Your task to perform on an android device: allow cookies in the chrome app Image 0: 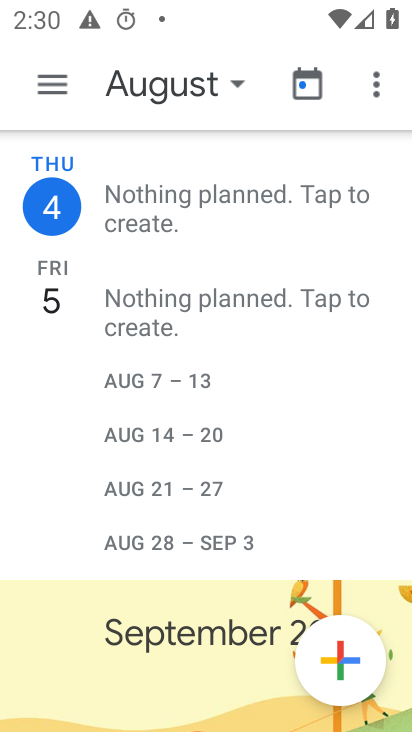
Step 0: press back button
Your task to perform on an android device: allow cookies in the chrome app Image 1: 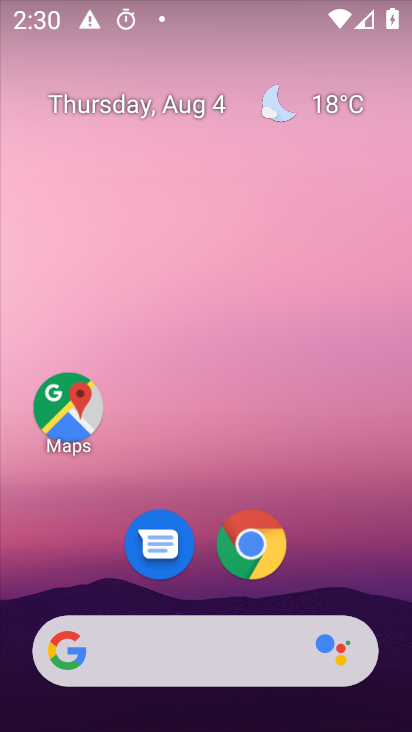
Step 1: click (247, 534)
Your task to perform on an android device: allow cookies in the chrome app Image 2: 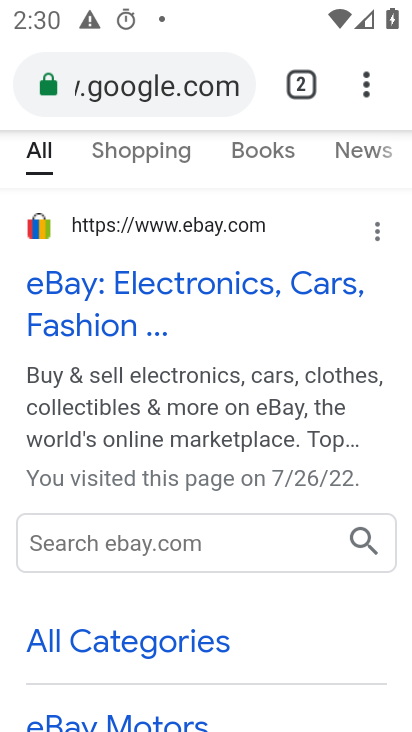
Step 2: click (366, 83)
Your task to perform on an android device: allow cookies in the chrome app Image 3: 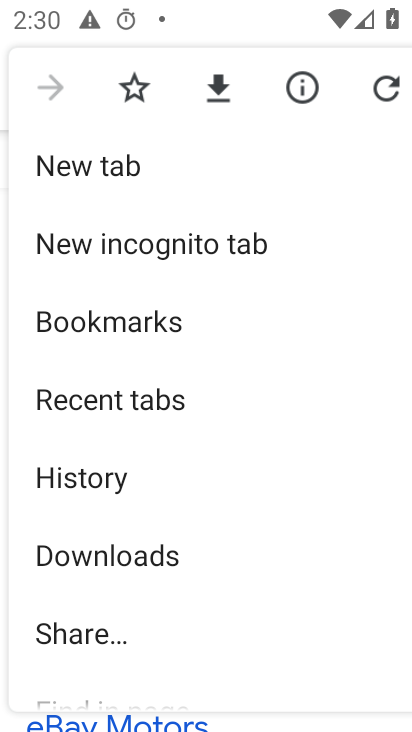
Step 3: click (82, 479)
Your task to perform on an android device: allow cookies in the chrome app Image 4: 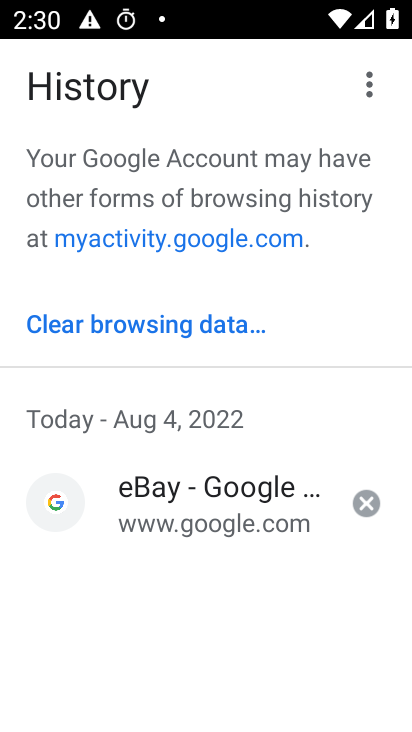
Step 4: click (173, 324)
Your task to perform on an android device: allow cookies in the chrome app Image 5: 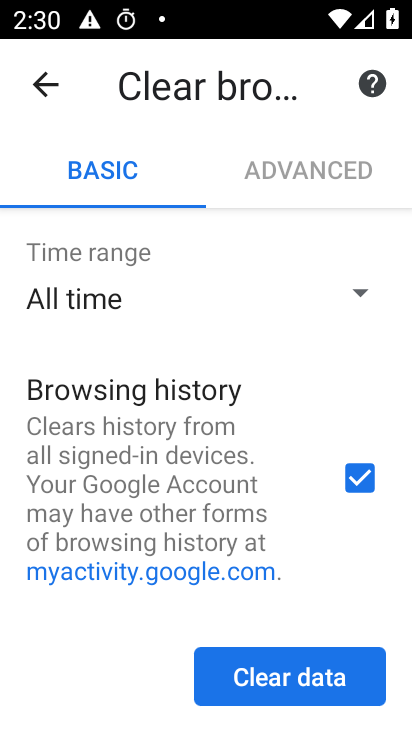
Step 5: click (295, 676)
Your task to perform on an android device: allow cookies in the chrome app Image 6: 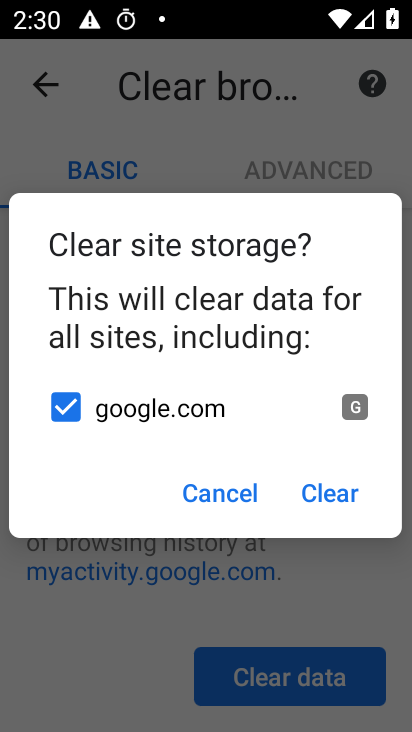
Step 6: click (318, 497)
Your task to perform on an android device: allow cookies in the chrome app Image 7: 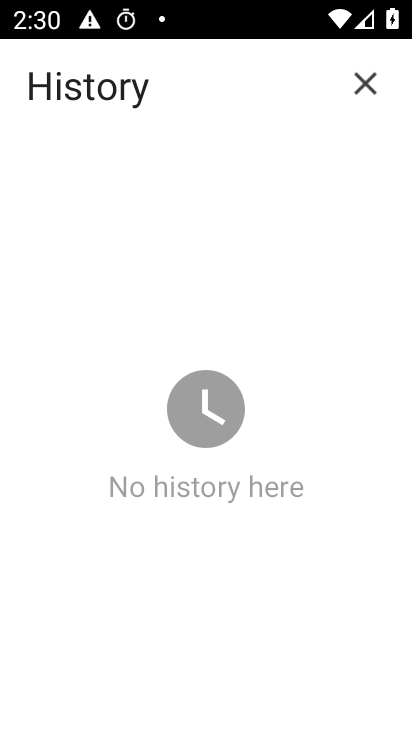
Step 7: task complete